Your task to perform on an android device: turn off picture-in-picture Image 0: 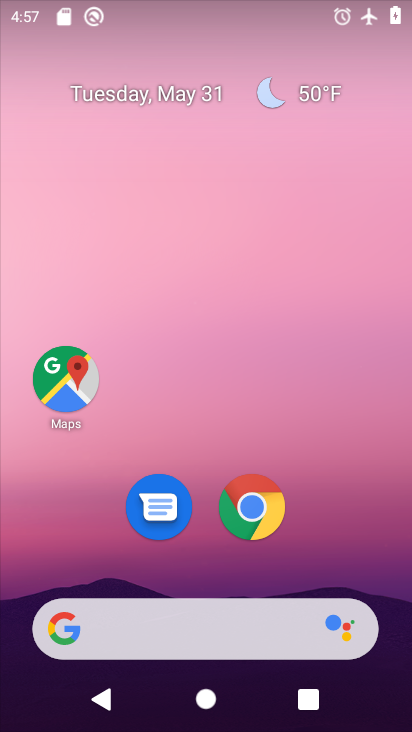
Step 0: click (256, 487)
Your task to perform on an android device: turn off picture-in-picture Image 1: 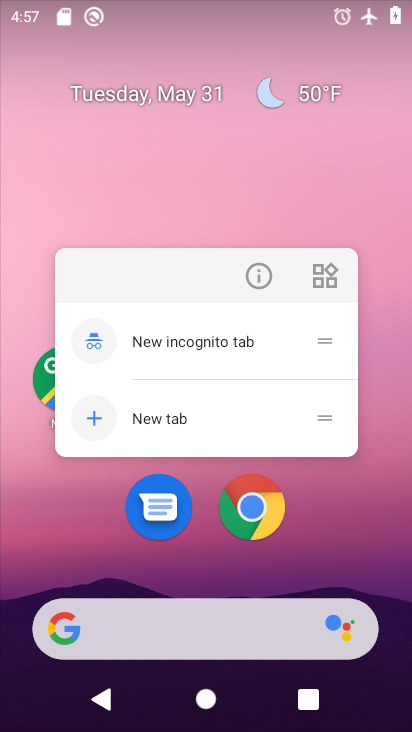
Step 1: click (257, 274)
Your task to perform on an android device: turn off picture-in-picture Image 2: 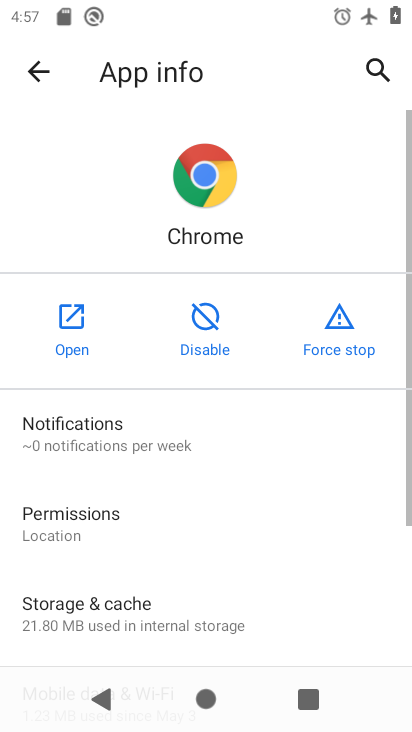
Step 2: drag from (165, 524) to (155, 186)
Your task to perform on an android device: turn off picture-in-picture Image 3: 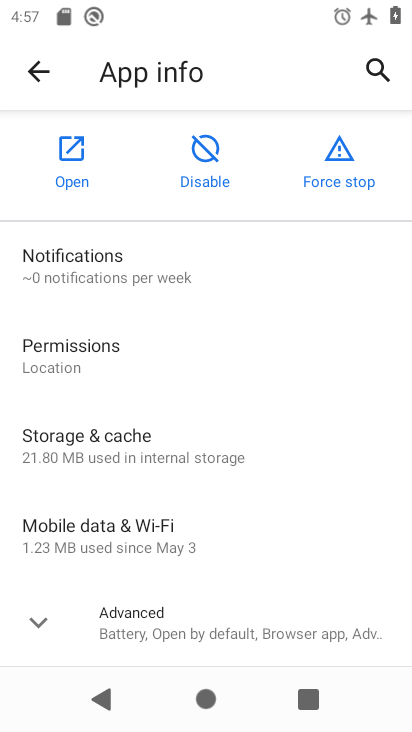
Step 3: click (41, 620)
Your task to perform on an android device: turn off picture-in-picture Image 4: 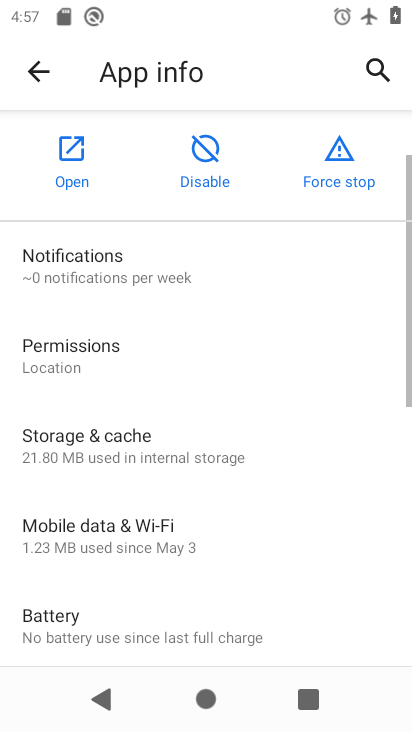
Step 4: drag from (262, 532) to (169, 16)
Your task to perform on an android device: turn off picture-in-picture Image 5: 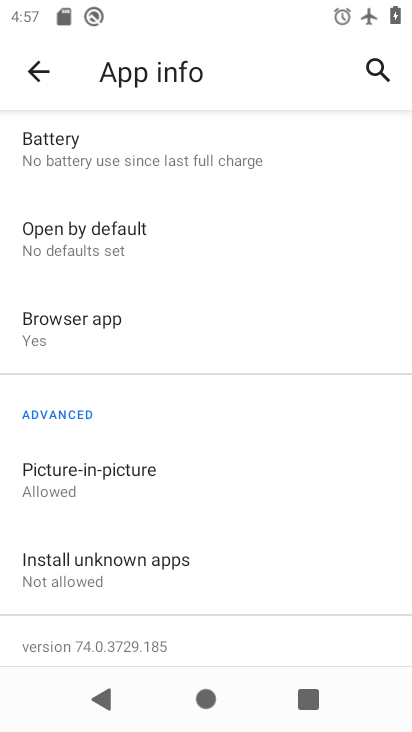
Step 5: click (161, 483)
Your task to perform on an android device: turn off picture-in-picture Image 6: 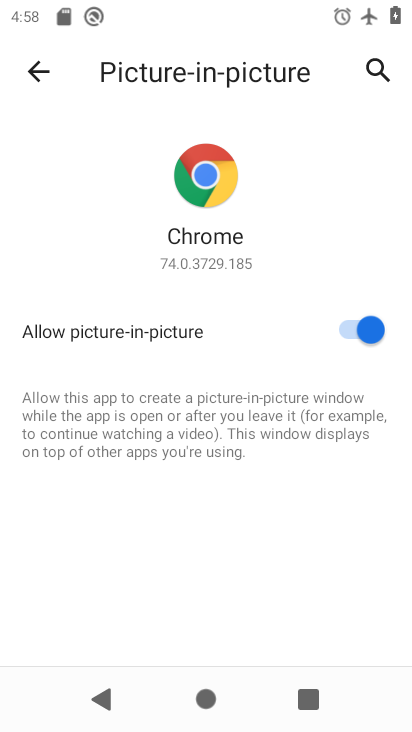
Step 6: click (358, 324)
Your task to perform on an android device: turn off picture-in-picture Image 7: 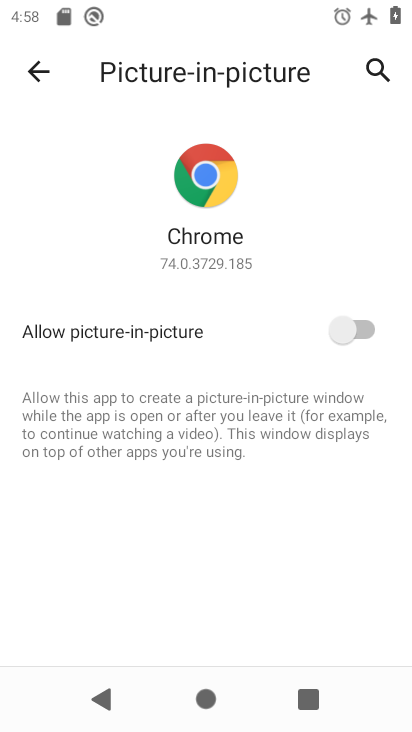
Step 7: task complete